Your task to perform on an android device: Open Google Chrome Image 0: 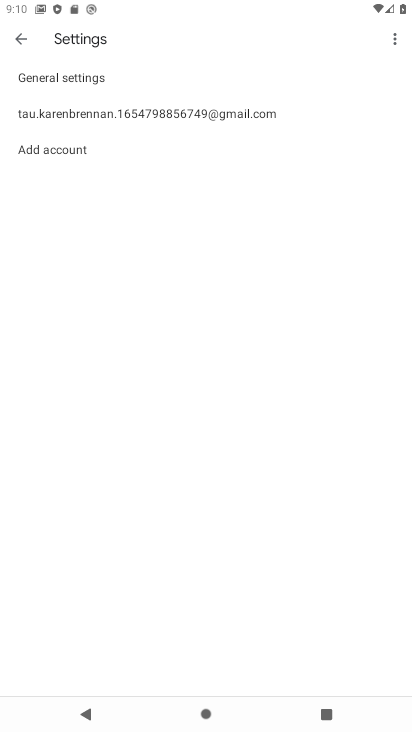
Step 0: press home button
Your task to perform on an android device: Open Google Chrome Image 1: 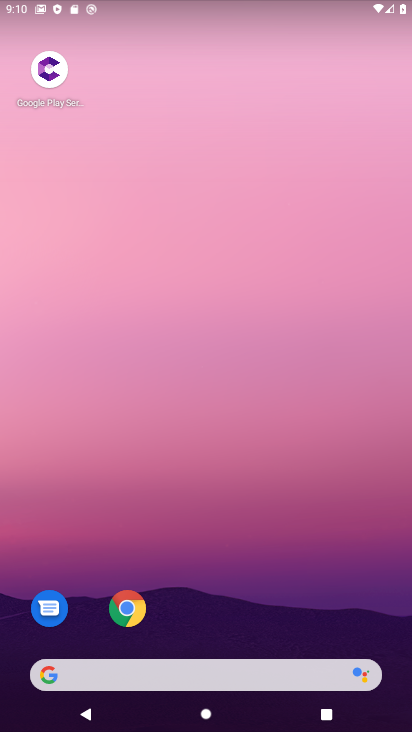
Step 1: click (130, 608)
Your task to perform on an android device: Open Google Chrome Image 2: 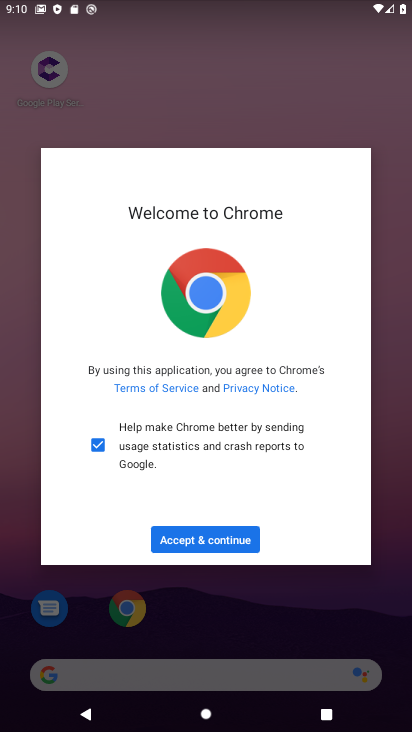
Step 2: click (222, 542)
Your task to perform on an android device: Open Google Chrome Image 3: 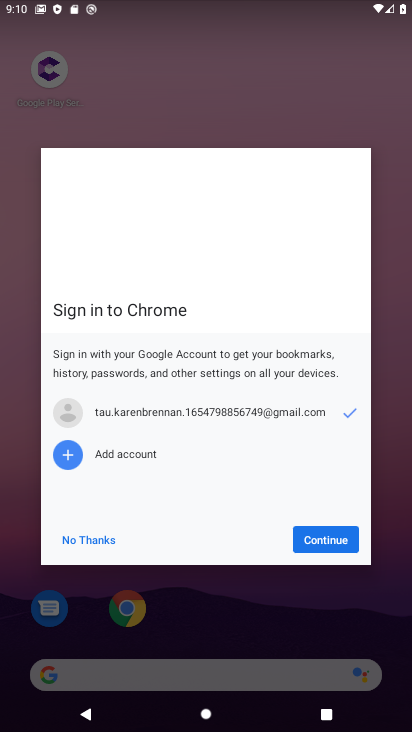
Step 3: click (318, 537)
Your task to perform on an android device: Open Google Chrome Image 4: 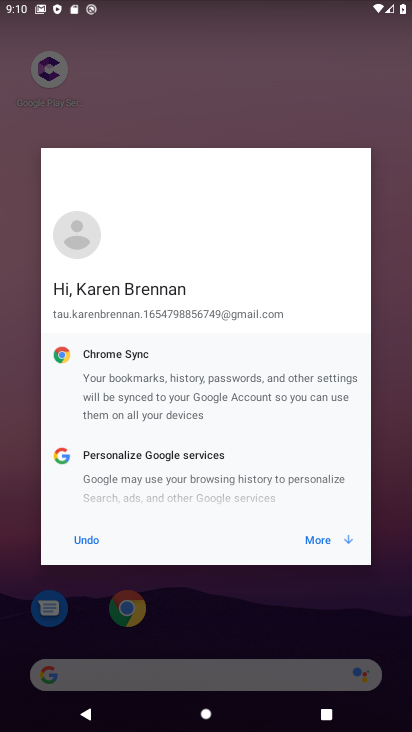
Step 4: click (317, 542)
Your task to perform on an android device: Open Google Chrome Image 5: 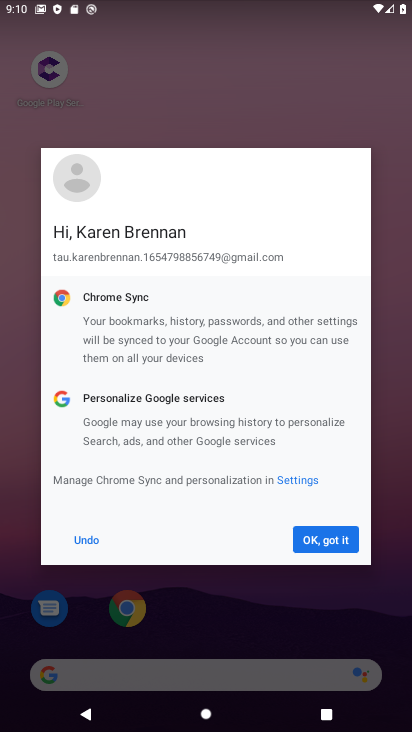
Step 5: click (320, 539)
Your task to perform on an android device: Open Google Chrome Image 6: 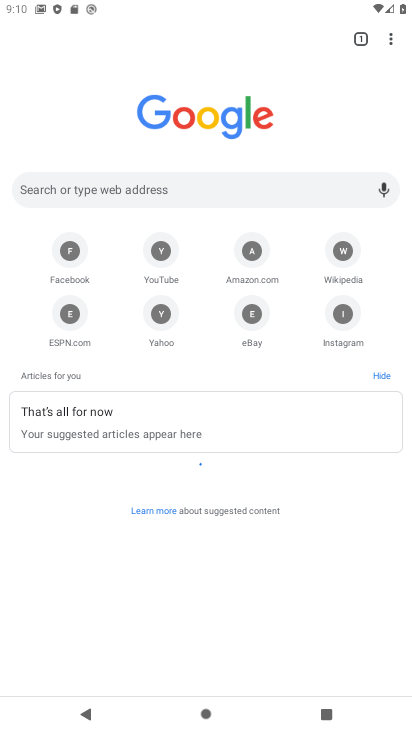
Step 6: task complete